Your task to perform on an android device: turn off data saver in the chrome app Image 0: 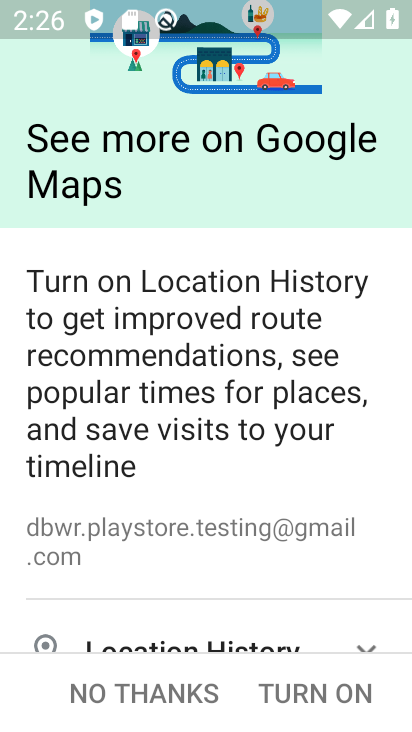
Step 0: press home button
Your task to perform on an android device: turn off data saver in the chrome app Image 1: 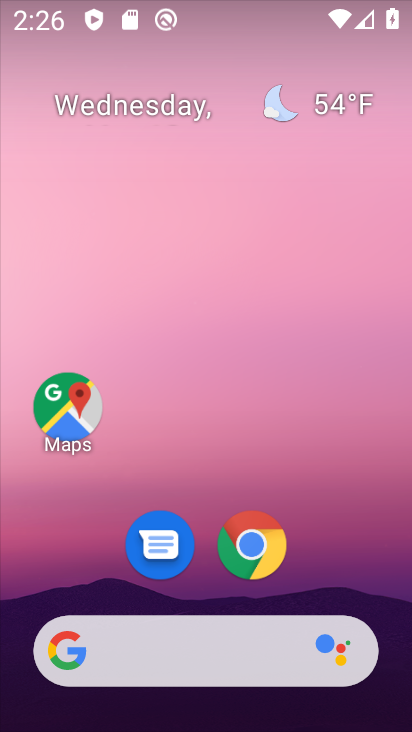
Step 1: click (257, 552)
Your task to perform on an android device: turn off data saver in the chrome app Image 2: 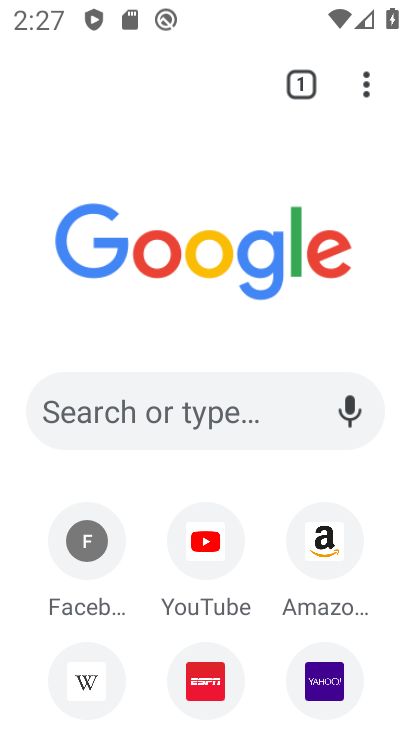
Step 2: click (375, 87)
Your task to perform on an android device: turn off data saver in the chrome app Image 3: 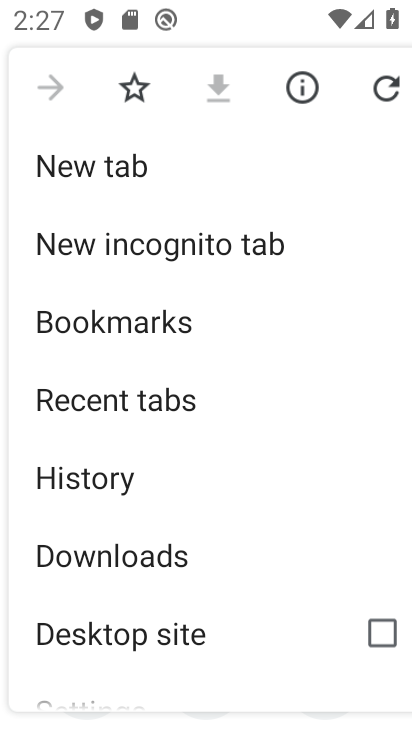
Step 3: drag from (223, 540) to (248, 129)
Your task to perform on an android device: turn off data saver in the chrome app Image 4: 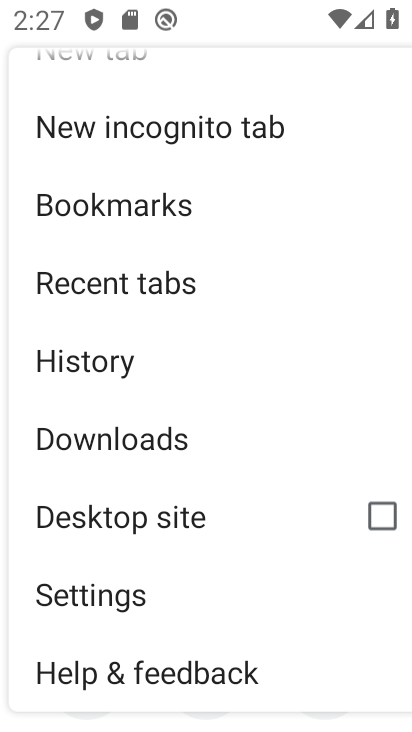
Step 4: click (152, 581)
Your task to perform on an android device: turn off data saver in the chrome app Image 5: 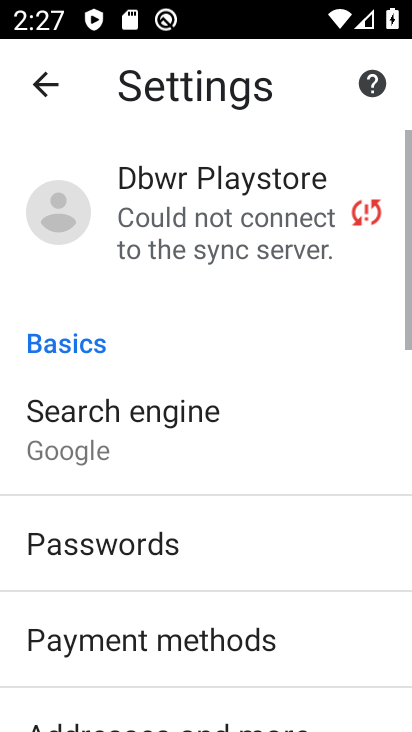
Step 5: drag from (151, 580) to (174, 143)
Your task to perform on an android device: turn off data saver in the chrome app Image 6: 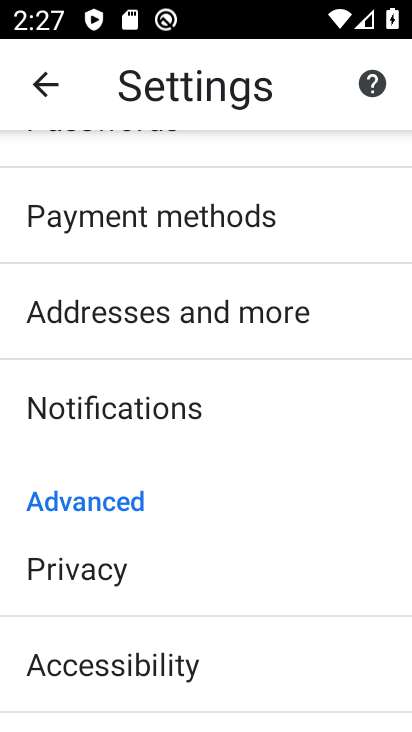
Step 6: drag from (144, 573) to (167, 140)
Your task to perform on an android device: turn off data saver in the chrome app Image 7: 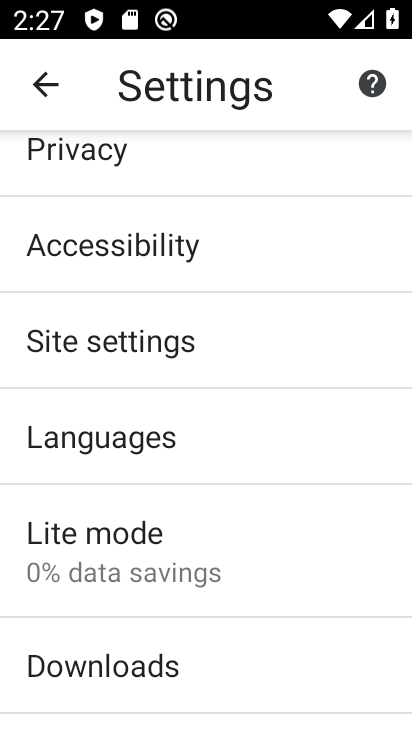
Step 7: click (172, 548)
Your task to perform on an android device: turn off data saver in the chrome app Image 8: 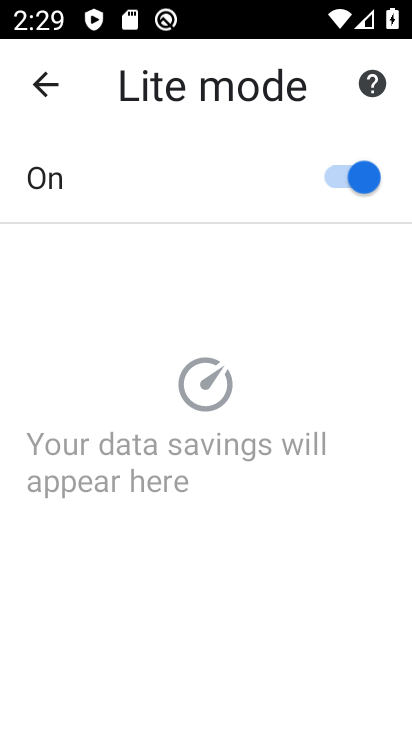
Step 8: click (363, 178)
Your task to perform on an android device: turn off data saver in the chrome app Image 9: 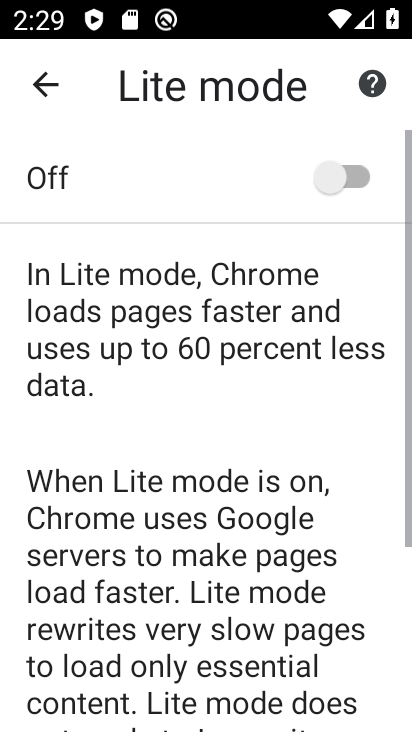
Step 9: task complete